Your task to perform on an android device: Open ESPN.com Image 0: 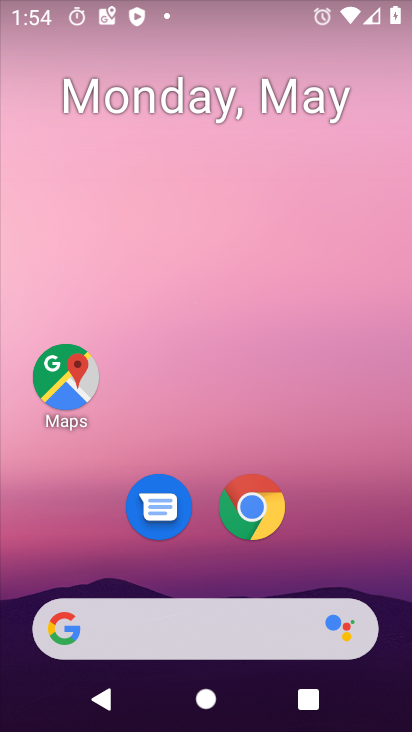
Step 0: click (257, 512)
Your task to perform on an android device: Open ESPN.com Image 1: 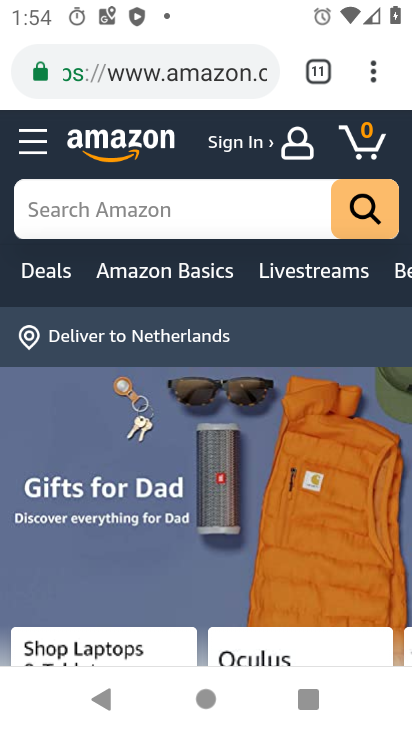
Step 1: click (375, 78)
Your task to perform on an android device: Open ESPN.com Image 2: 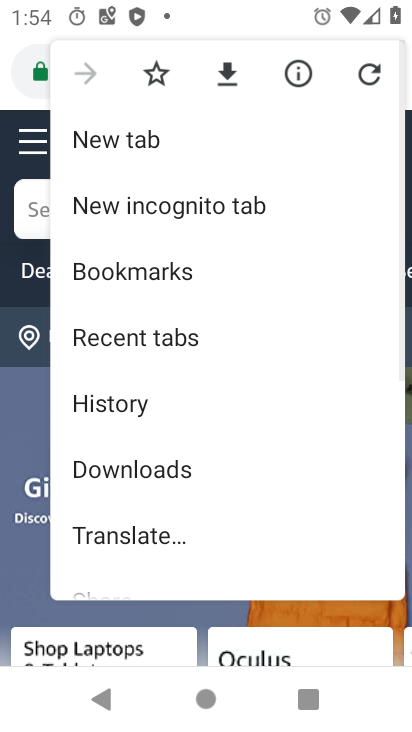
Step 2: click (125, 137)
Your task to perform on an android device: Open ESPN.com Image 3: 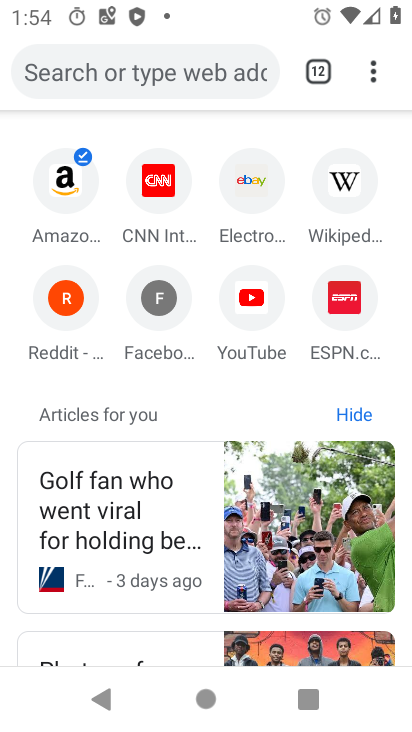
Step 3: click (344, 307)
Your task to perform on an android device: Open ESPN.com Image 4: 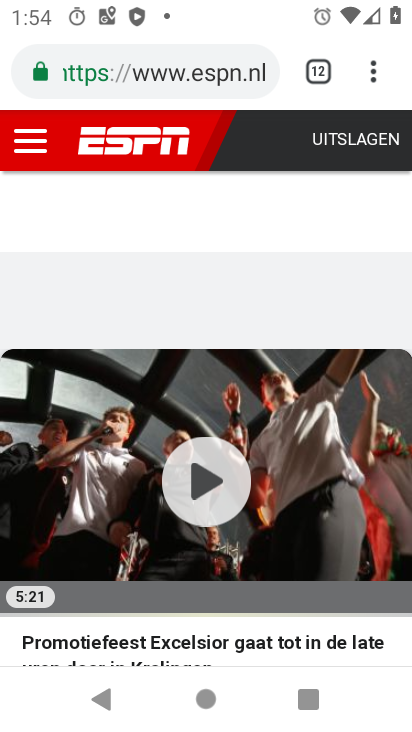
Step 4: task complete